Your task to perform on an android device: snooze an email in the gmail app Image 0: 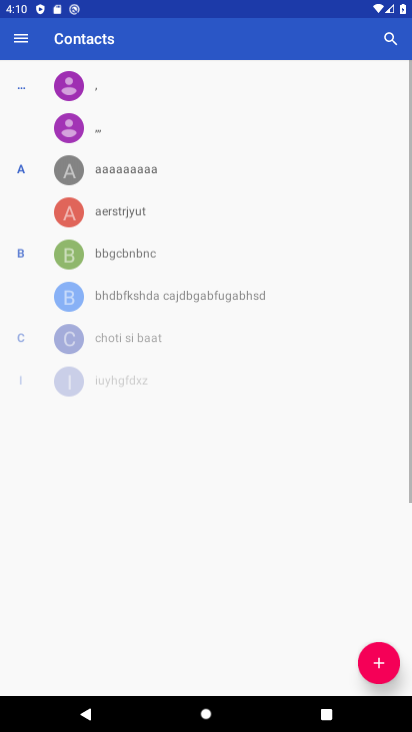
Step 0: drag from (230, 640) to (279, 13)
Your task to perform on an android device: snooze an email in the gmail app Image 1: 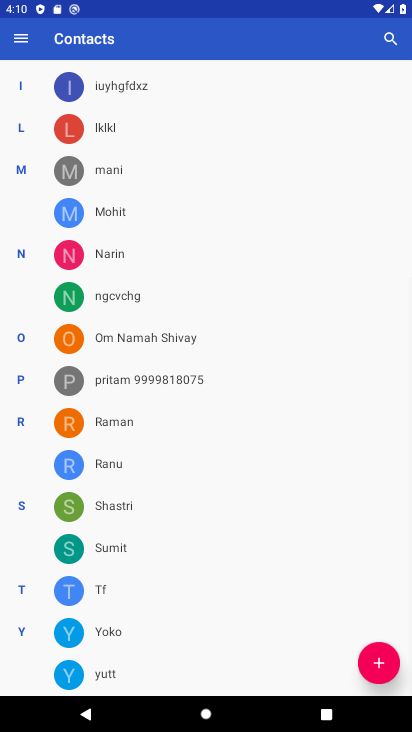
Step 1: press home button
Your task to perform on an android device: snooze an email in the gmail app Image 2: 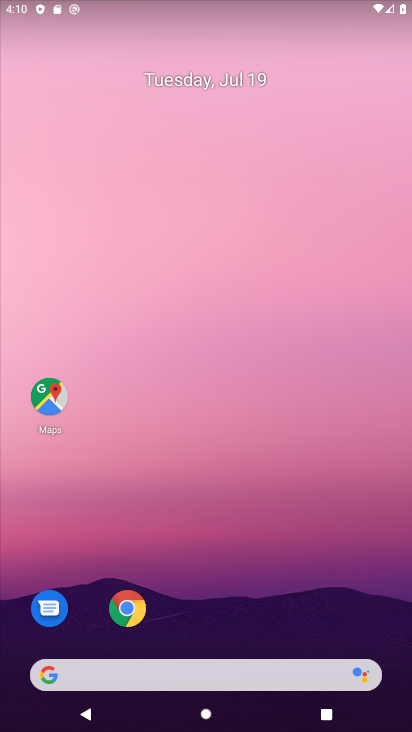
Step 2: drag from (180, 630) to (235, 9)
Your task to perform on an android device: snooze an email in the gmail app Image 3: 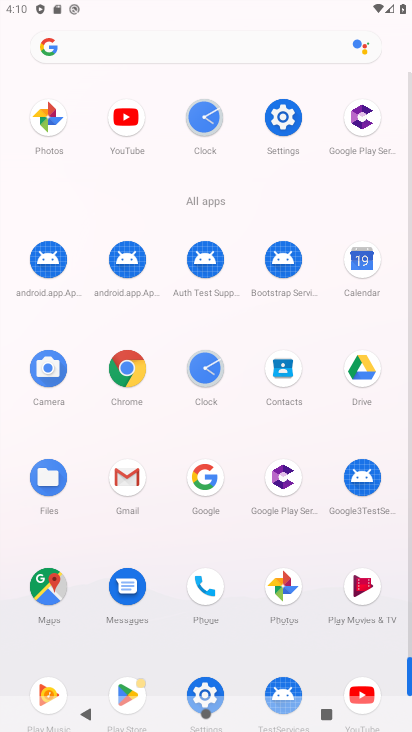
Step 3: click (135, 484)
Your task to perform on an android device: snooze an email in the gmail app Image 4: 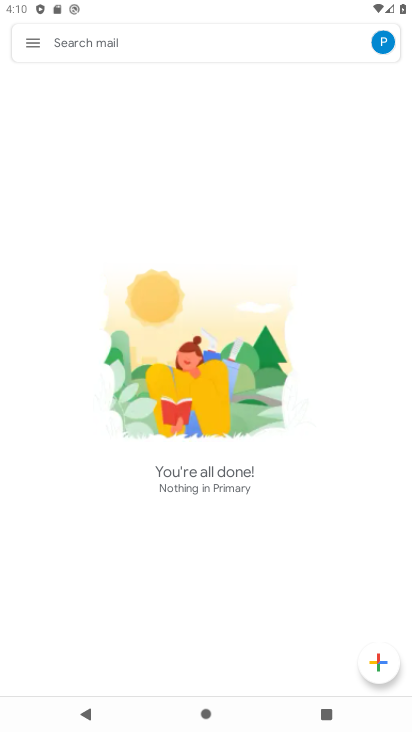
Step 4: click (29, 39)
Your task to perform on an android device: snooze an email in the gmail app Image 5: 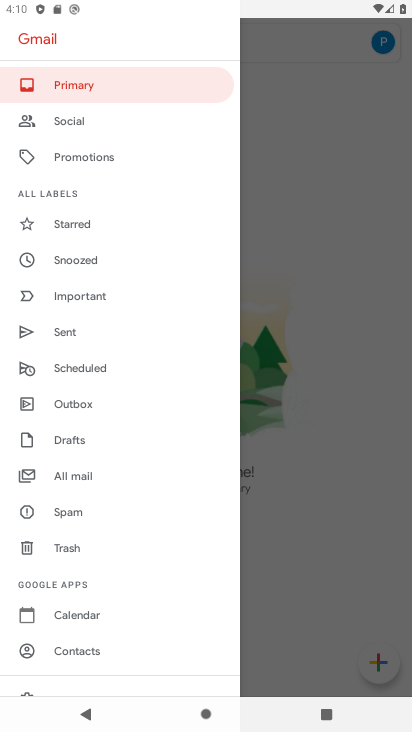
Step 5: click (59, 272)
Your task to perform on an android device: snooze an email in the gmail app Image 6: 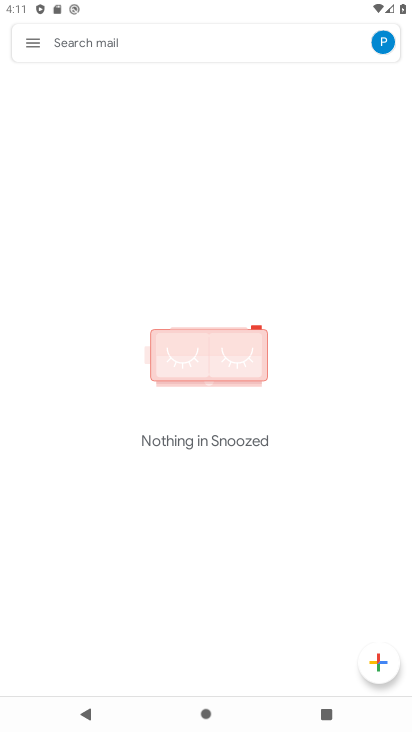
Step 6: task complete